Your task to perform on an android device: open app "Spotify: Music and Podcasts" (install if not already installed) Image 0: 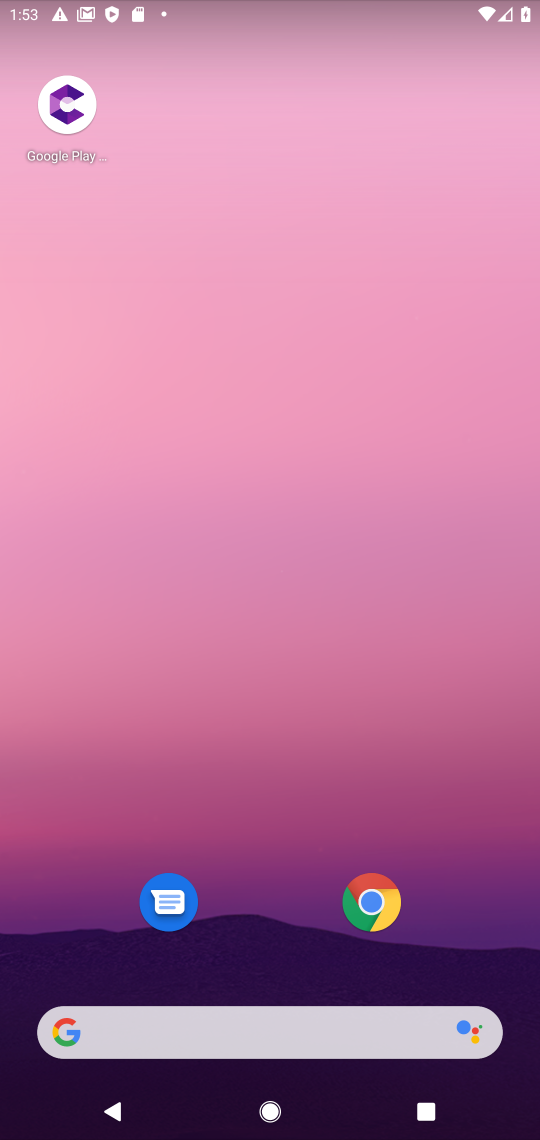
Step 0: press home button
Your task to perform on an android device: open app "Spotify: Music and Podcasts" (install if not already installed) Image 1: 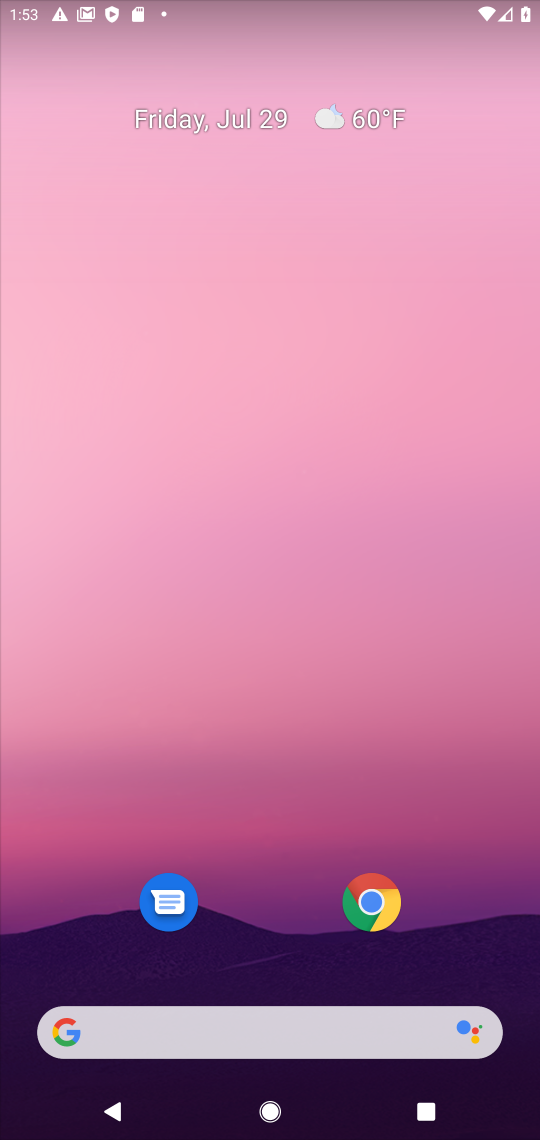
Step 1: drag from (282, 732) to (282, 193)
Your task to perform on an android device: open app "Spotify: Music and Podcasts" (install if not already installed) Image 2: 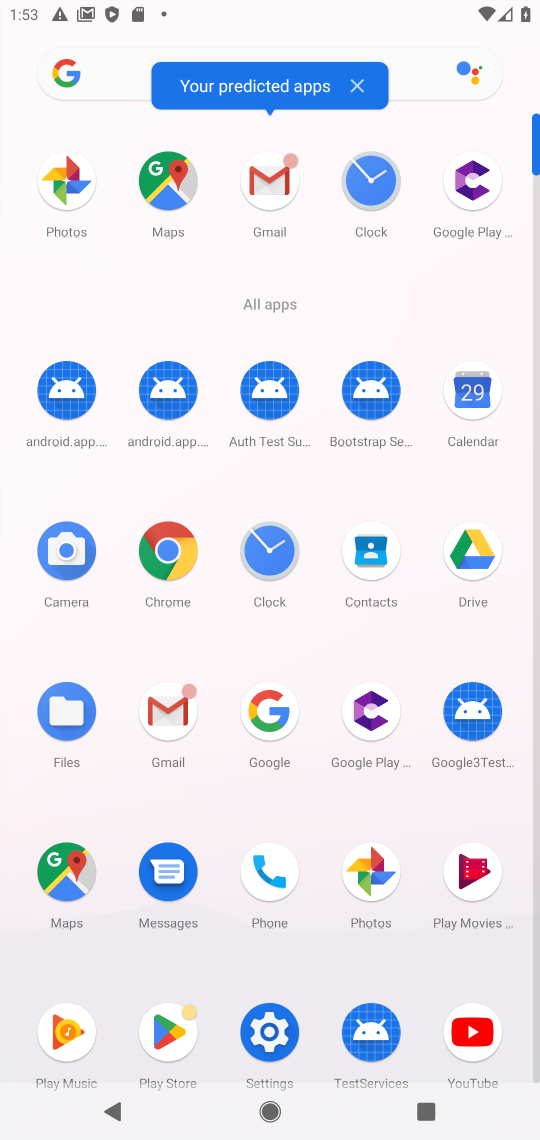
Step 2: click (172, 1029)
Your task to perform on an android device: open app "Spotify: Music and Podcasts" (install if not already installed) Image 3: 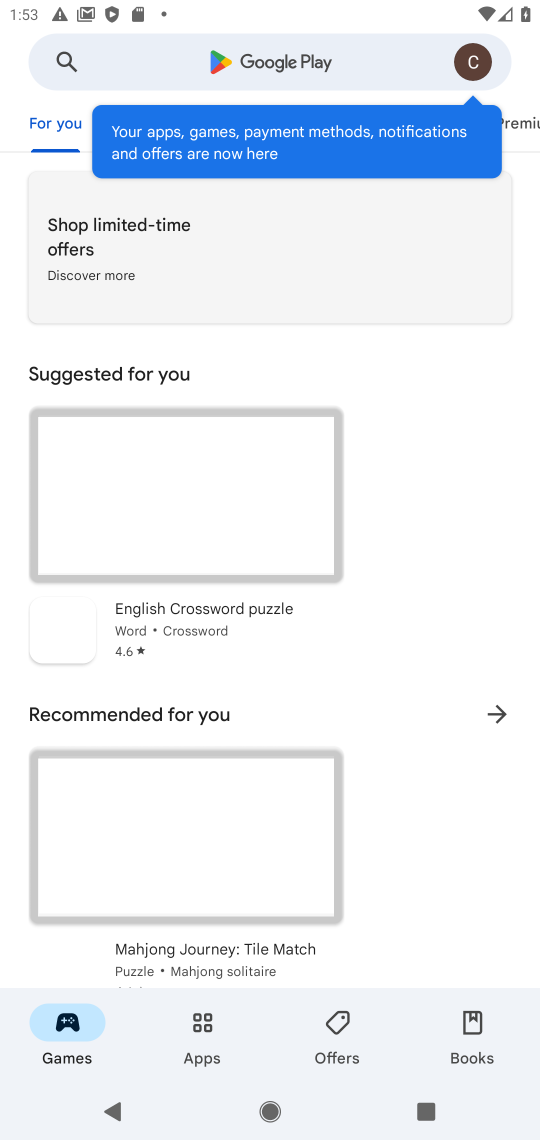
Step 3: click (287, 61)
Your task to perform on an android device: open app "Spotify: Music and Podcasts" (install if not already installed) Image 4: 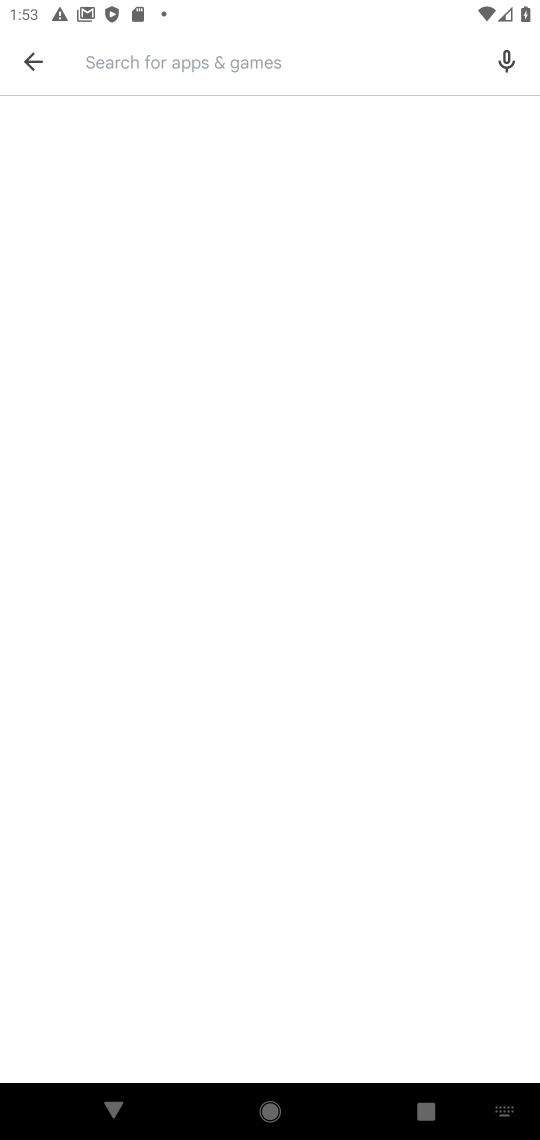
Step 4: type "Spotify: Music and Podcasts"
Your task to perform on an android device: open app "Spotify: Music and Podcasts" (install if not already installed) Image 5: 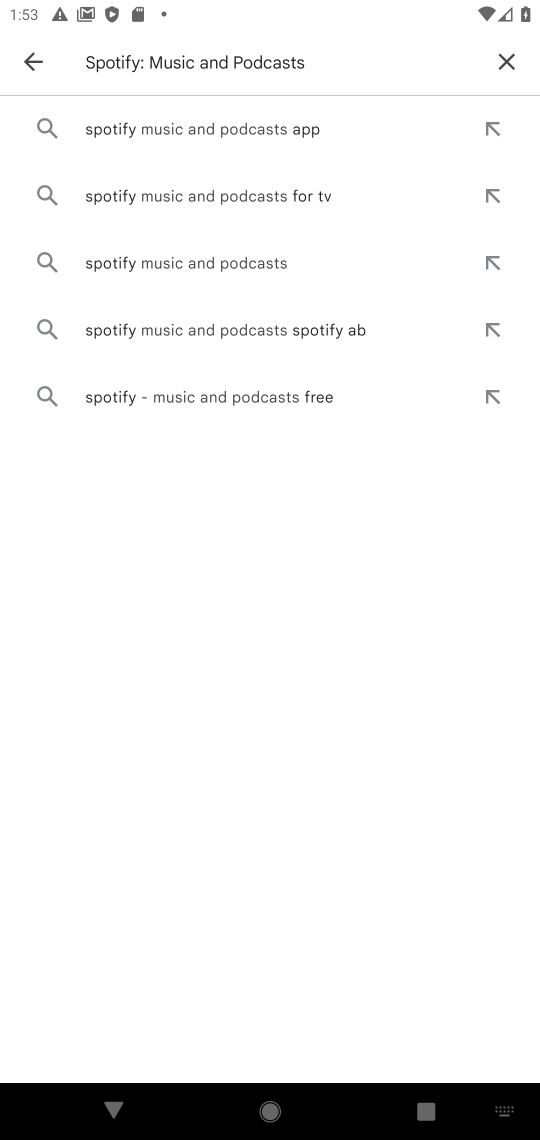
Step 5: click (144, 131)
Your task to perform on an android device: open app "Spotify: Music and Podcasts" (install if not already installed) Image 6: 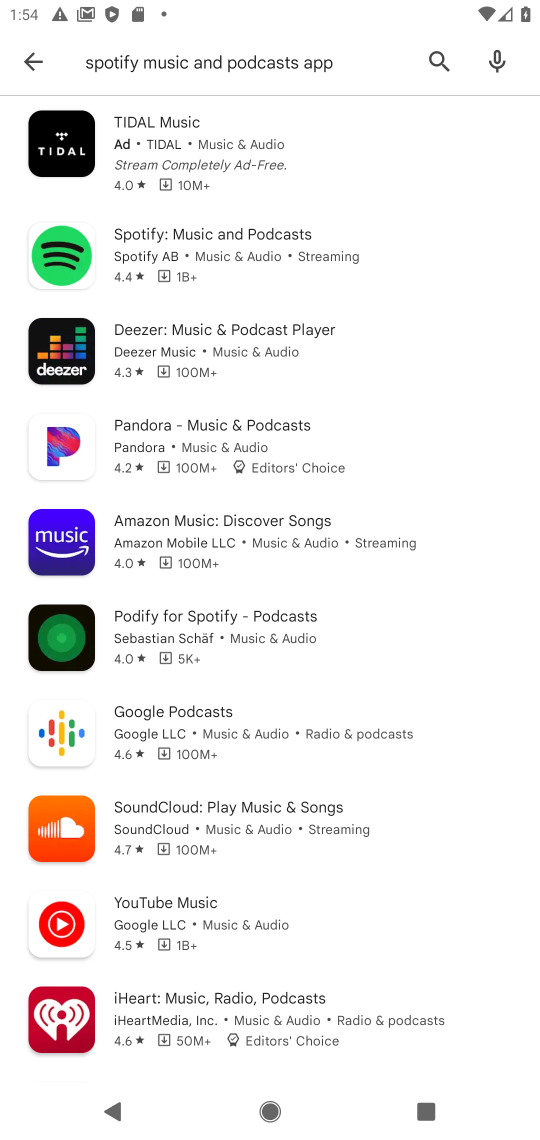
Step 6: click (220, 240)
Your task to perform on an android device: open app "Spotify: Music and Podcasts" (install if not already installed) Image 7: 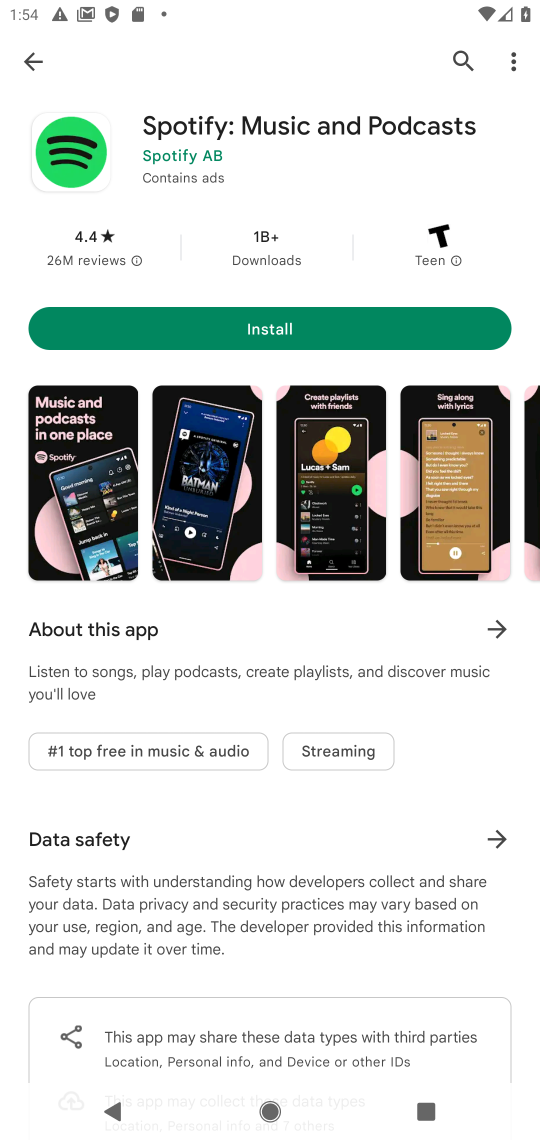
Step 7: task complete